Your task to perform on an android device: empty trash in the gmail app Image 0: 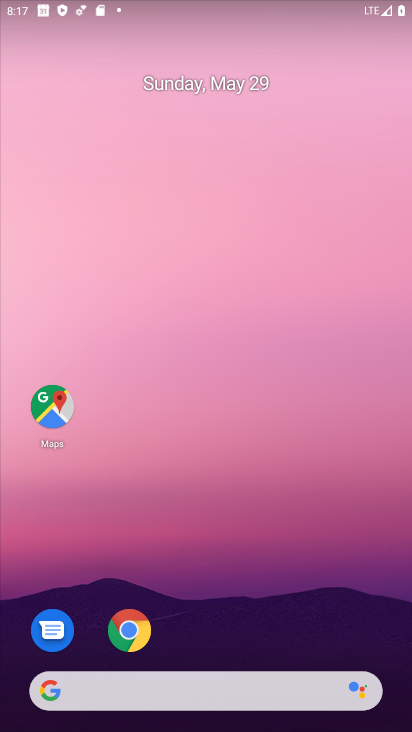
Step 0: drag from (231, 655) to (84, 29)
Your task to perform on an android device: empty trash in the gmail app Image 1: 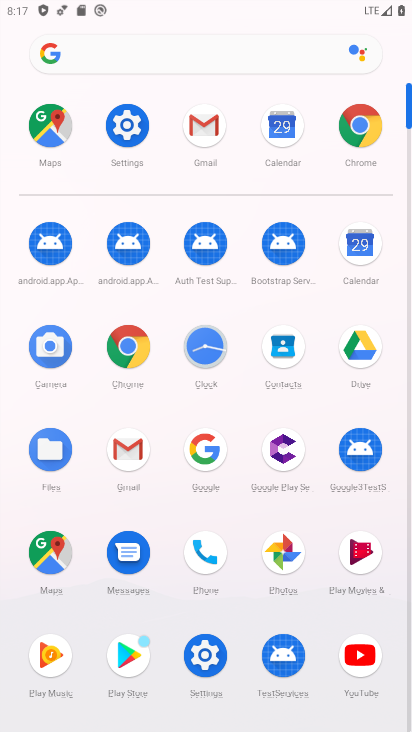
Step 1: click (124, 447)
Your task to perform on an android device: empty trash in the gmail app Image 2: 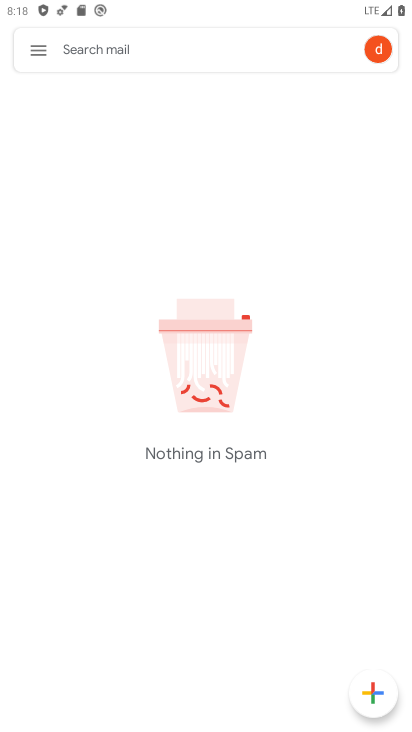
Step 2: click (27, 49)
Your task to perform on an android device: empty trash in the gmail app Image 3: 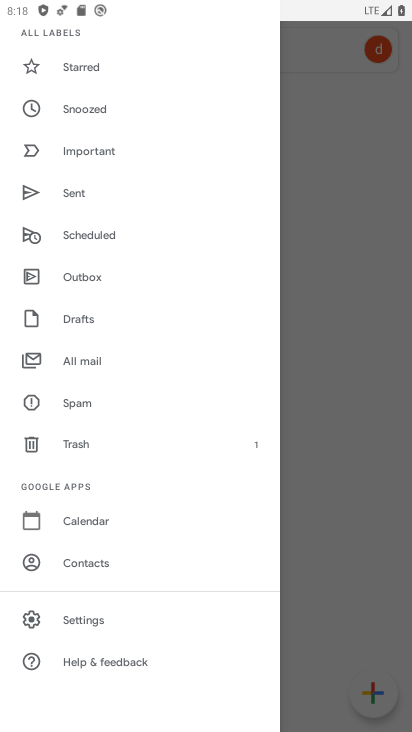
Step 3: click (83, 441)
Your task to perform on an android device: empty trash in the gmail app Image 4: 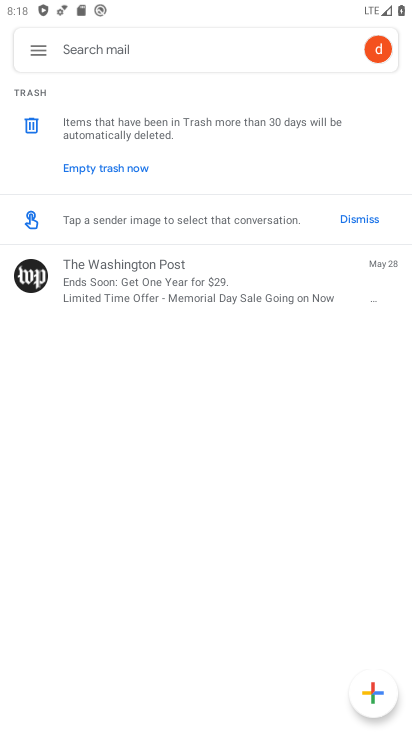
Step 4: click (121, 170)
Your task to perform on an android device: empty trash in the gmail app Image 5: 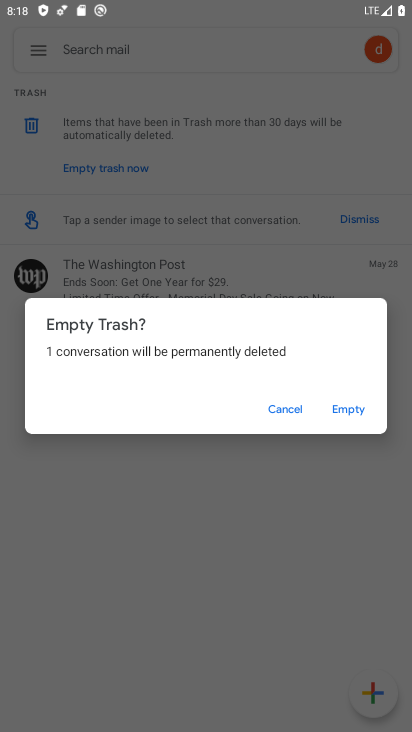
Step 5: click (360, 418)
Your task to perform on an android device: empty trash in the gmail app Image 6: 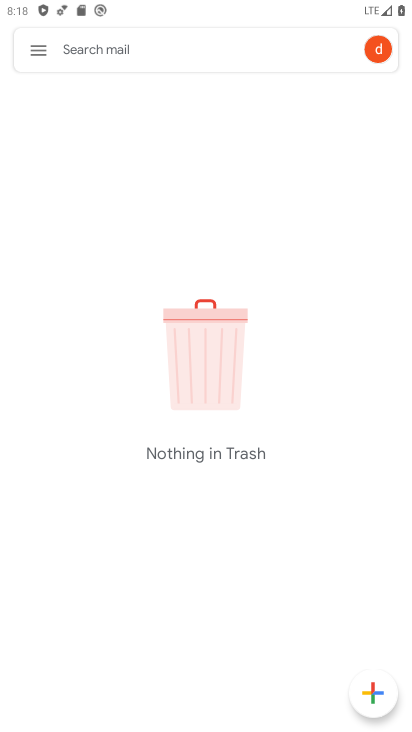
Step 6: task complete